Your task to perform on an android device: Search for the new Nintendo switch on Best Buy Image 0: 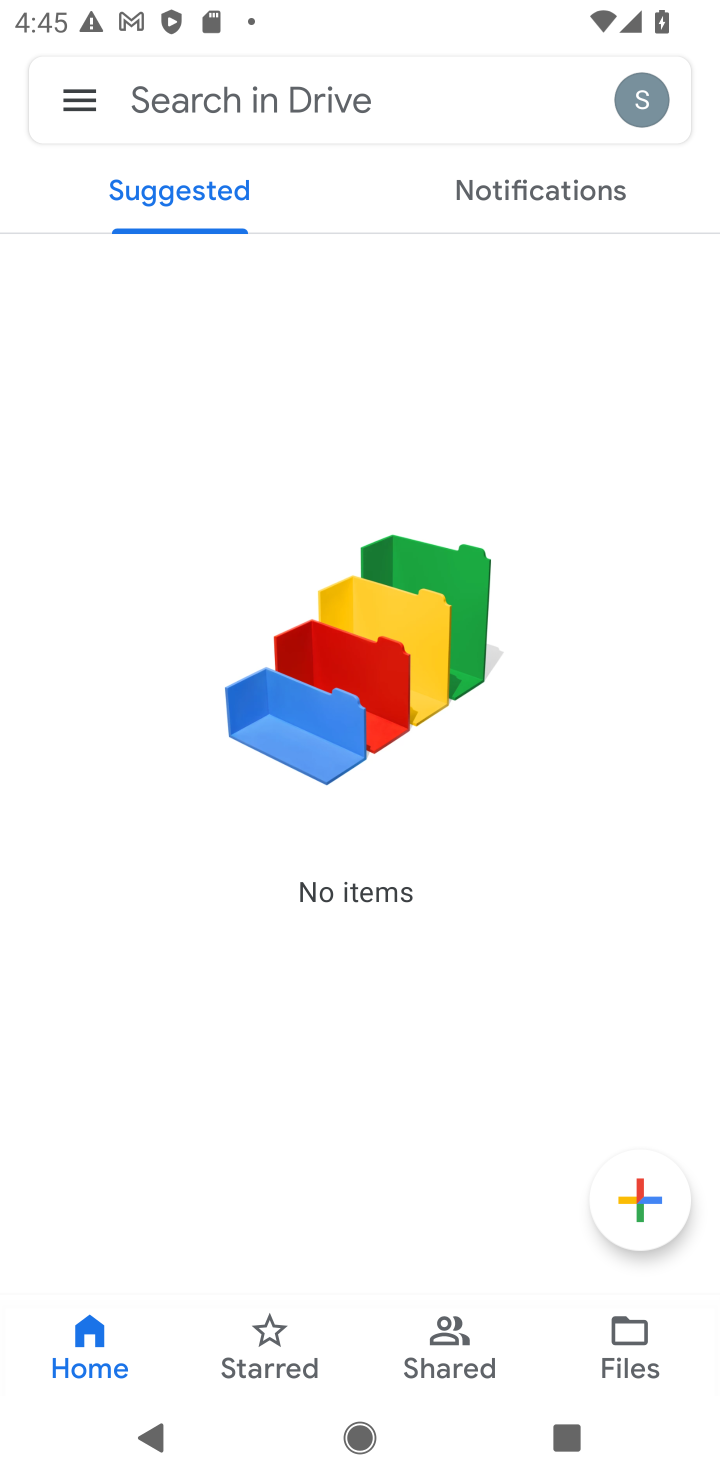
Step 0: press home button
Your task to perform on an android device: Search for the new Nintendo switch on Best Buy Image 1: 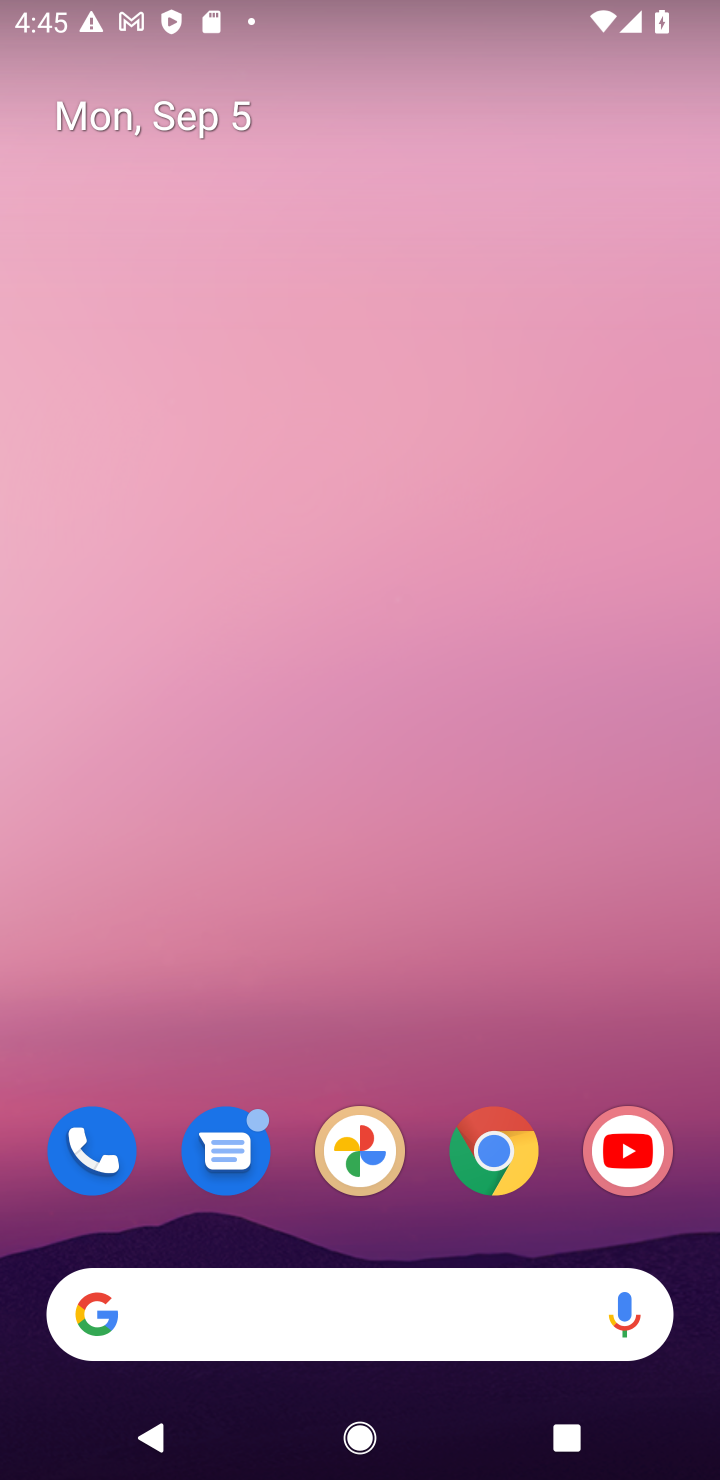
Step 1: drag from (433, 1229) to (517, 459)
Your task to perform on an android device: Search for the new Nintendo switch on Best Buy Image 2: 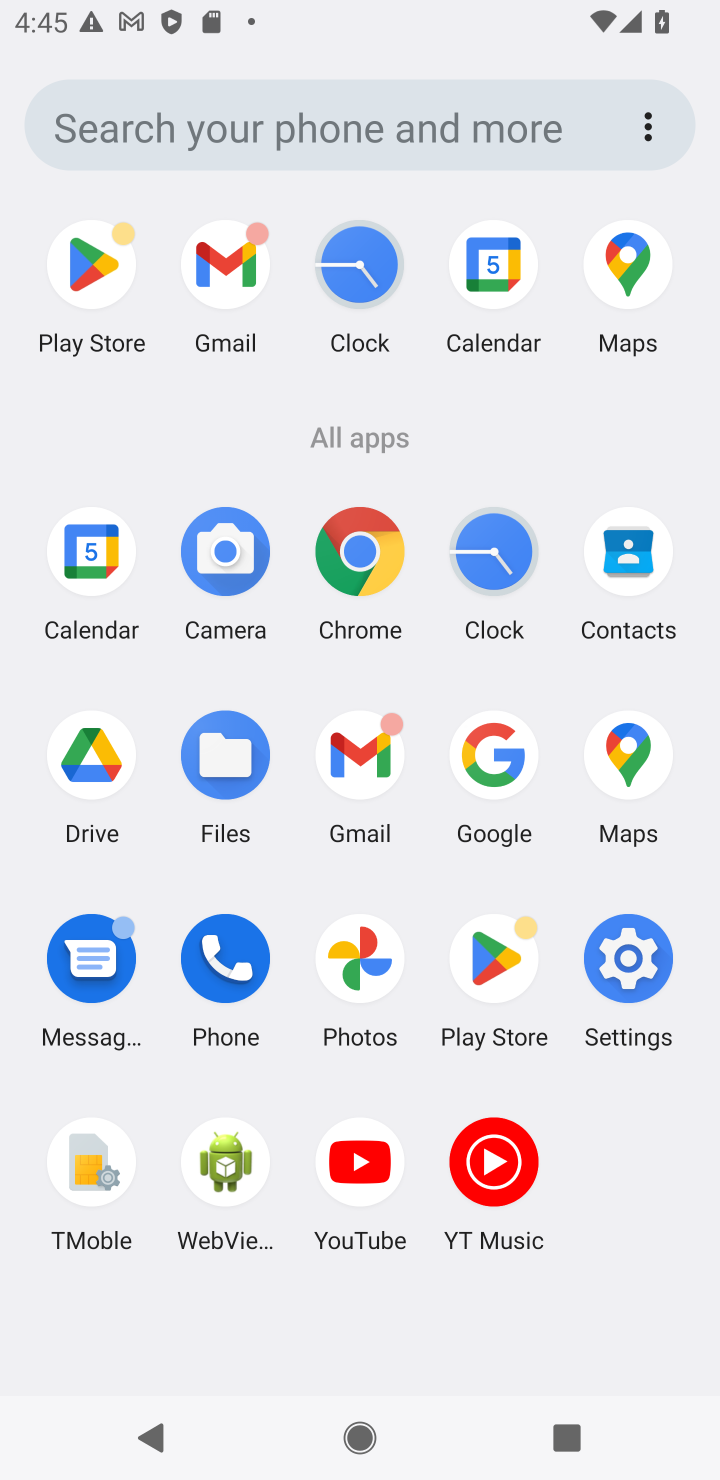
Step 2: click (356, 593)
Your task to perform on an android device: Search for the new Nintendo switch on Best Buy Image 3: 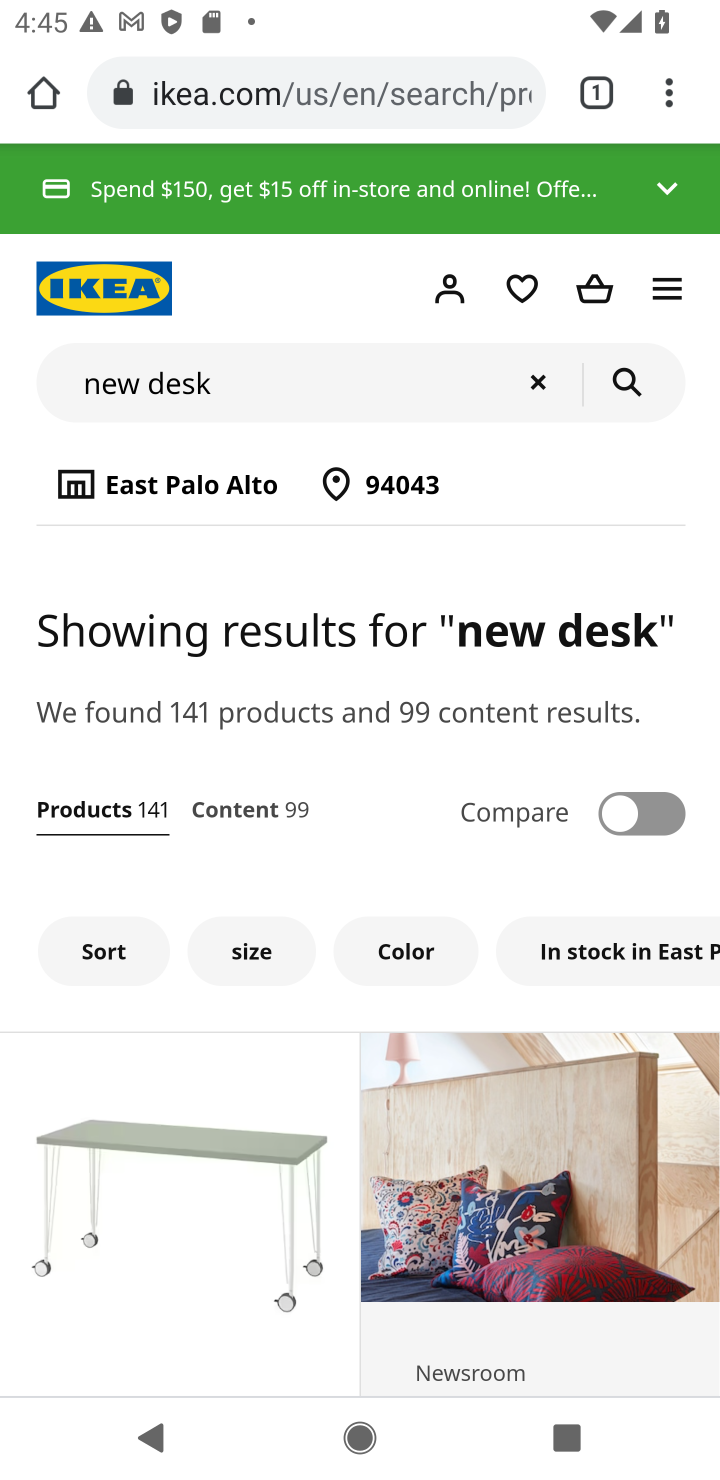
Step 3: click (427, 102)
Your task to perform on an android device: Search for the new Nintendo switch on Best Buy Image 4: 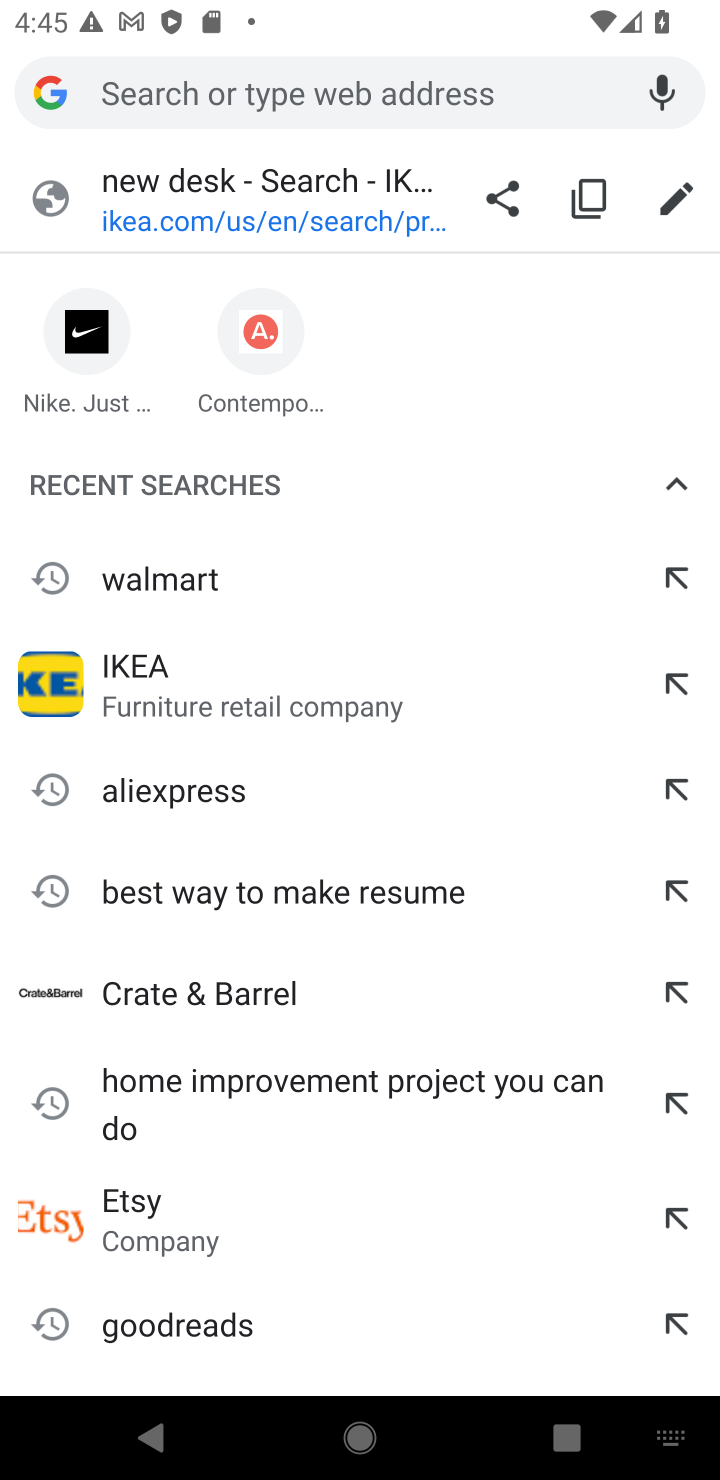
Step 4: type "best buy"
Your task to perform on an android device: Search for the new Nintendo switch on Best Buy Image 5: 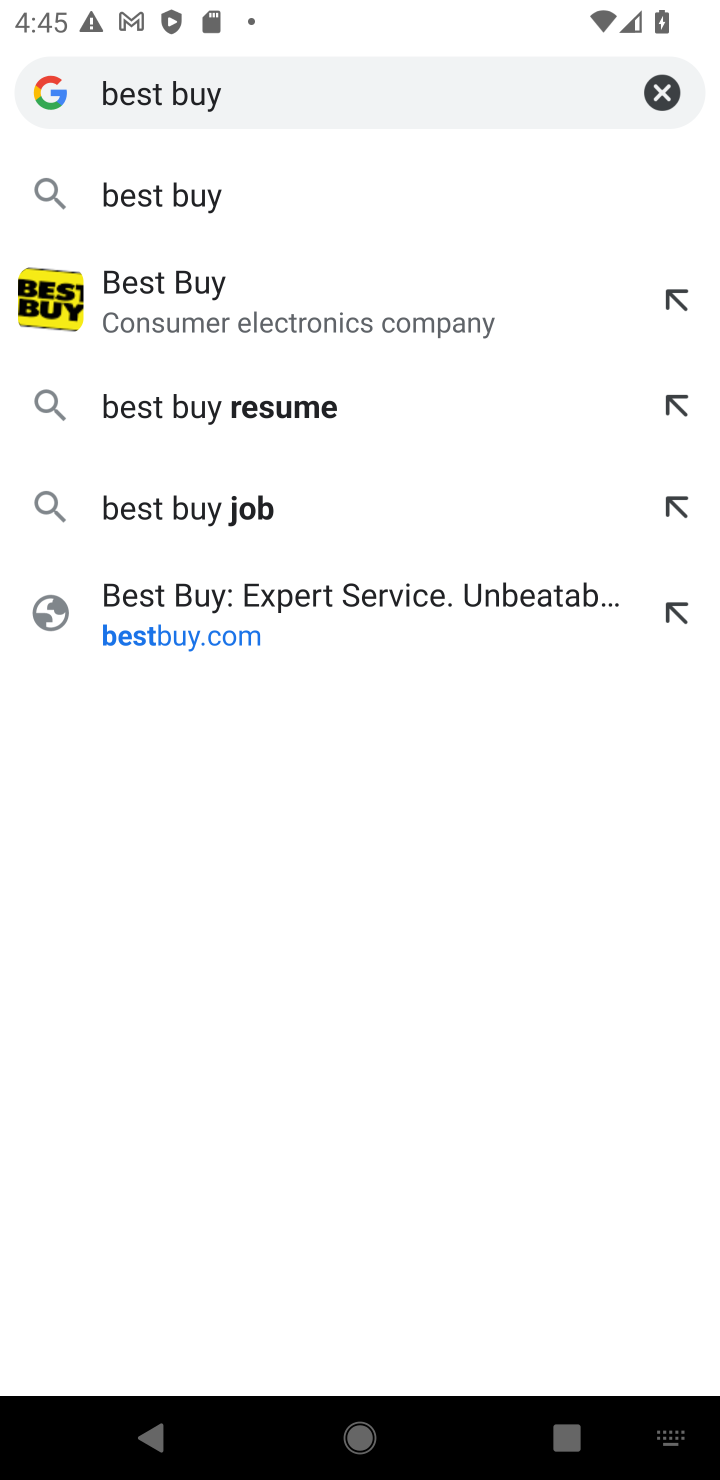
Step 5: click (307, 289)
Your task to perform on an android device: Search for the new Nintendo switch on Best Buy Image 6: 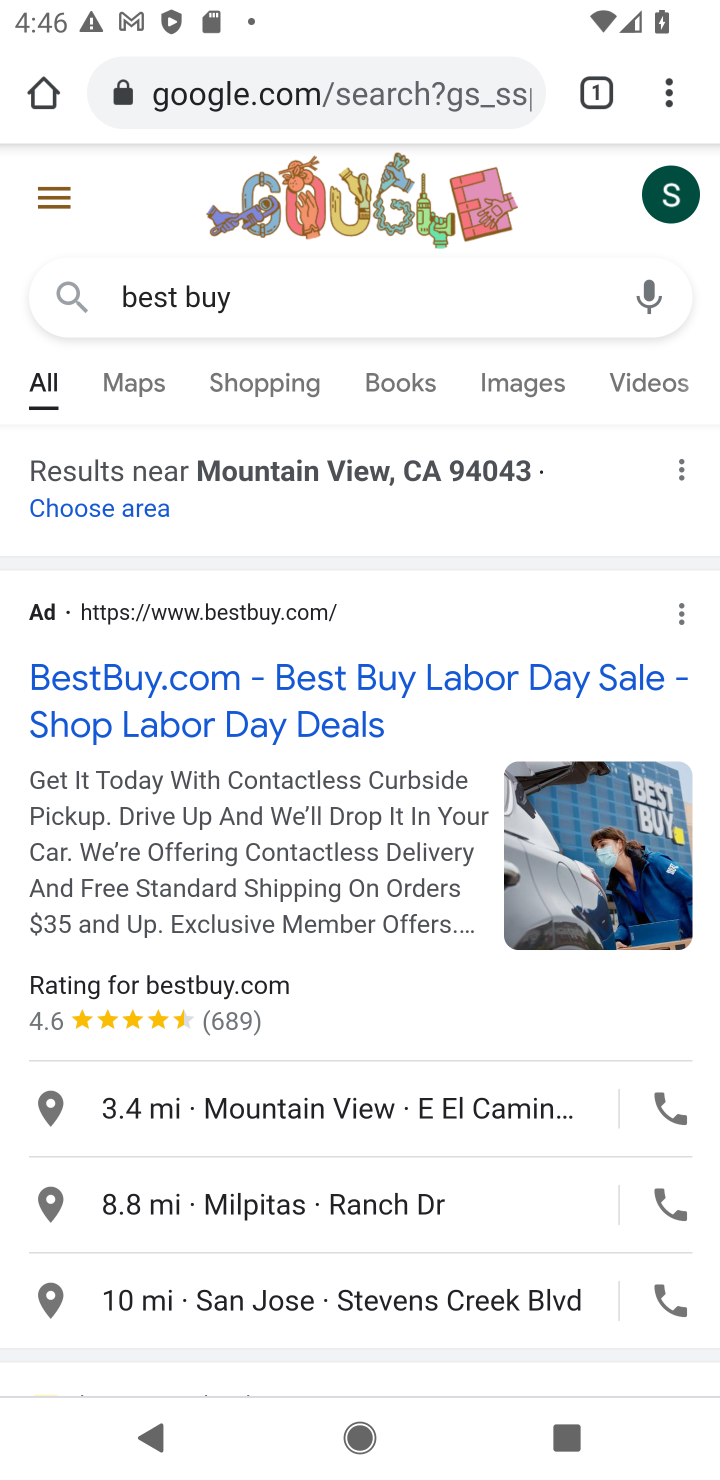
Step 6: drag from (376, 1163) to (481, 523)
Your task to perform on an android device: Search for the new Nintendo switch on Best Buy Image 7: 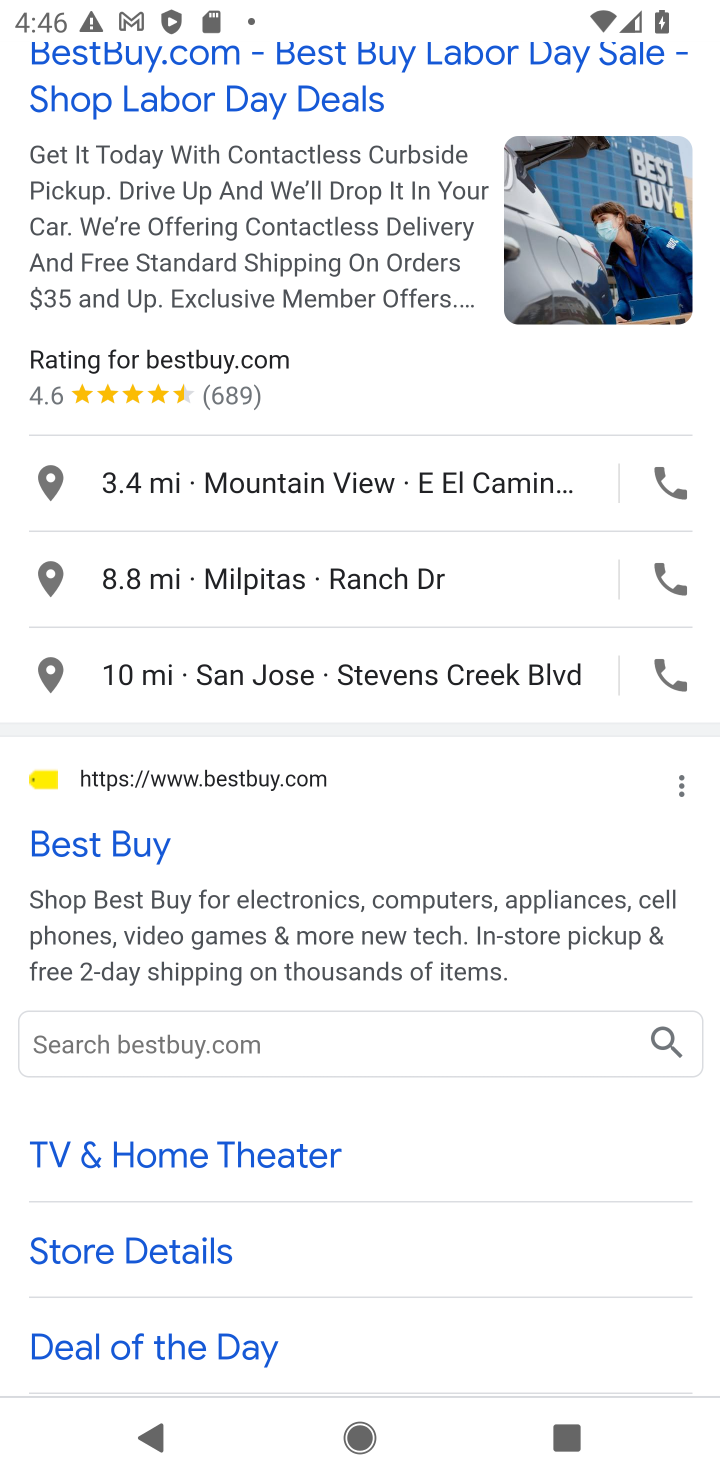
Step 7: click (147, 838)
Your task to perform on an android device: Search for the new Nintendo switch on Best Buy Image 8: 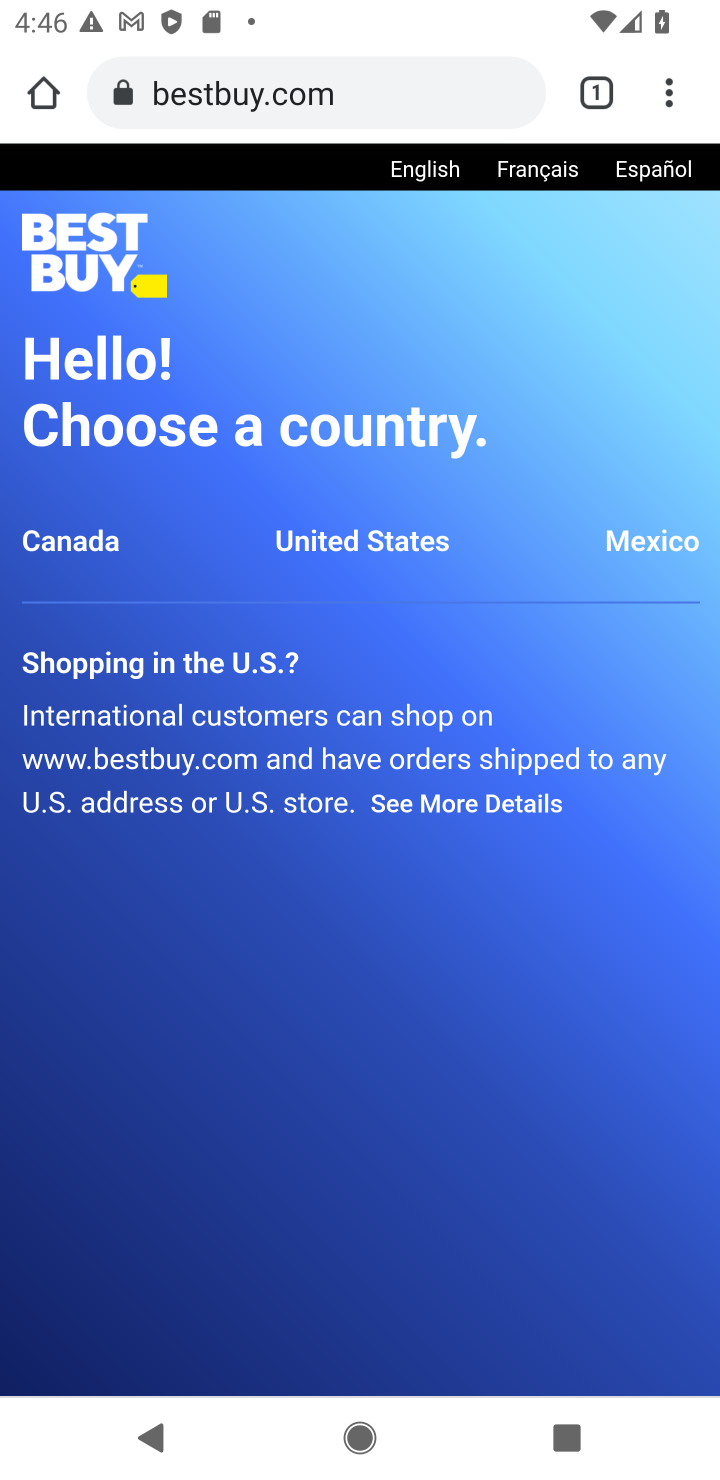
Step 8: click (380, 545)
Your task to perform on an android device: Search for the new Nintendo switch on Best Buy Image 9: 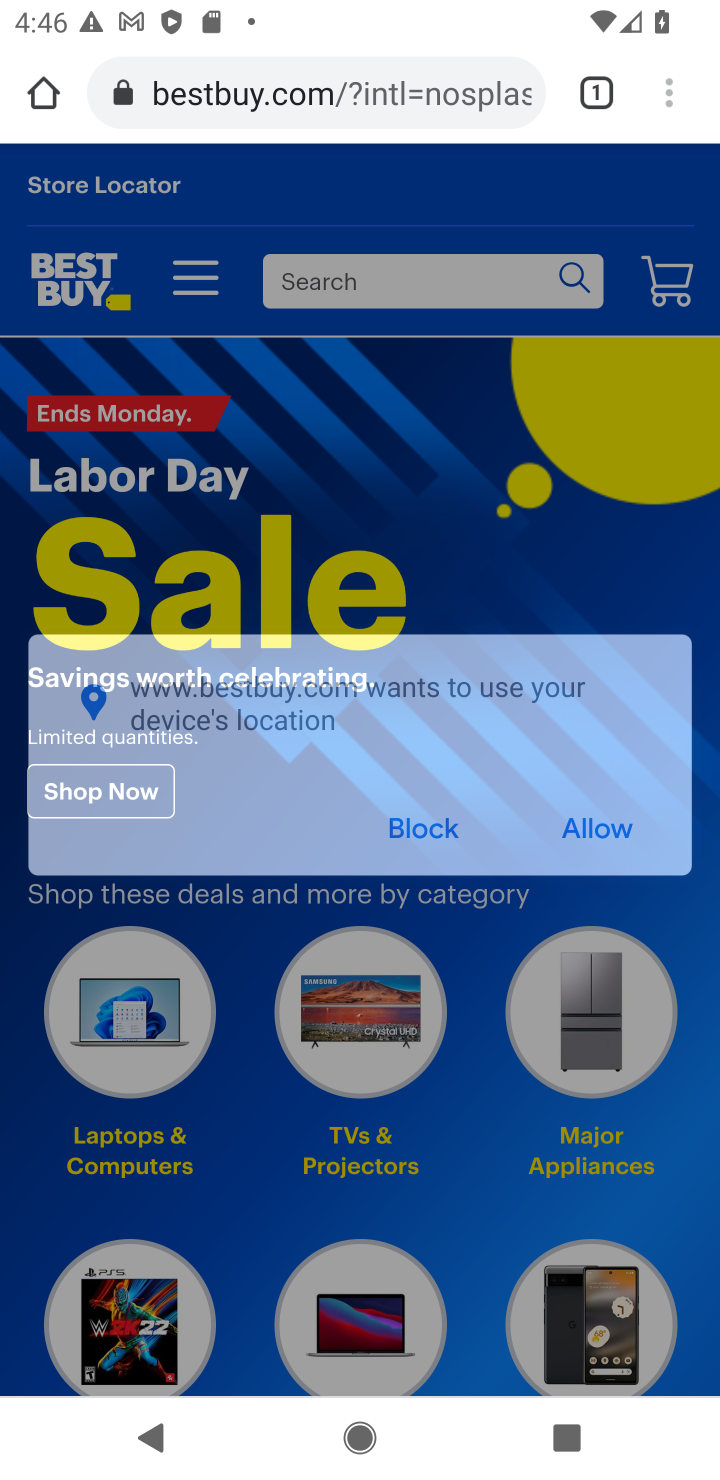
Step 9: click (458, 284)
Your task to perform on an android device: Search for the new Nintendo switch on Best Buy Image 10: 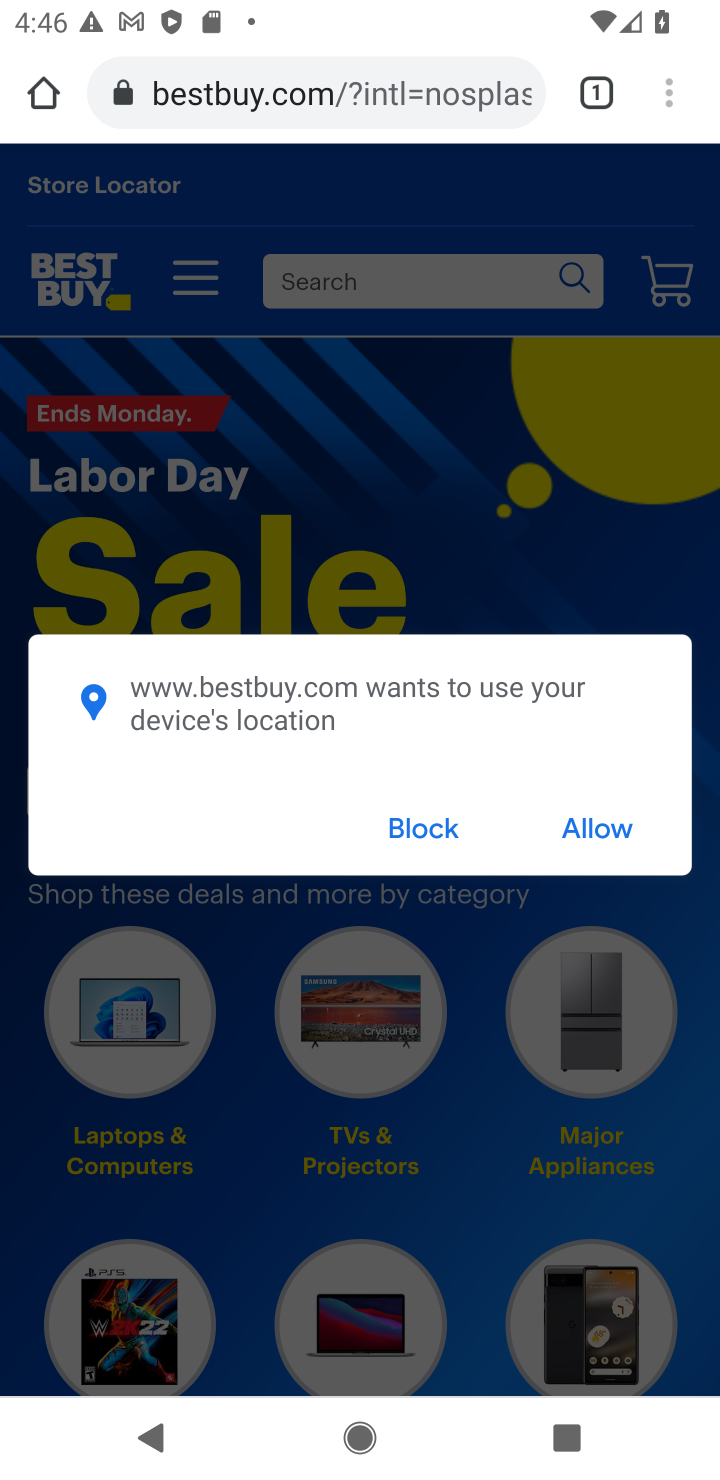
Step 10: click (574, 833)
Your task to perform on an android device: Search for the new Nintendo switch on Best Buy Image 11: 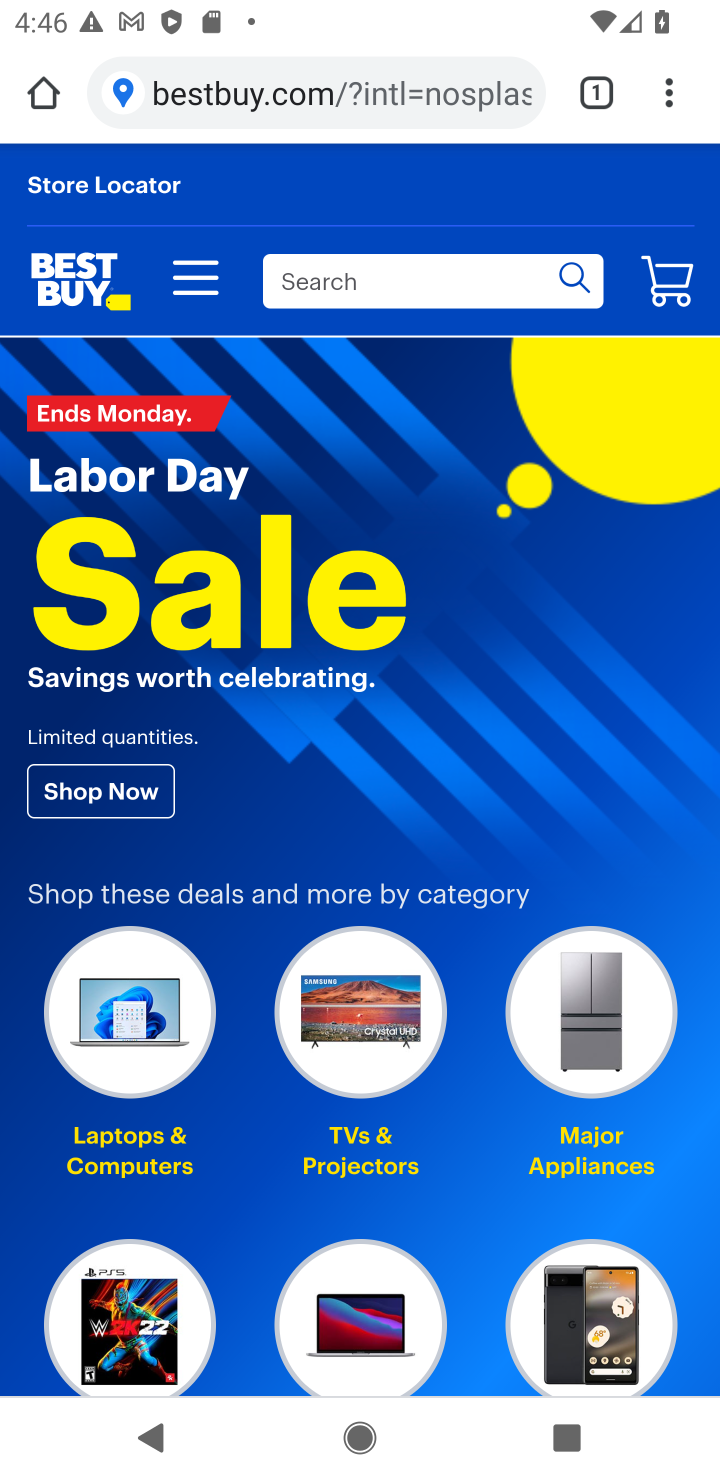
Step 11: click (469, 289)
Your task to perform on an android device: Search for the new Nintendo switch on Best Buy Image 12: 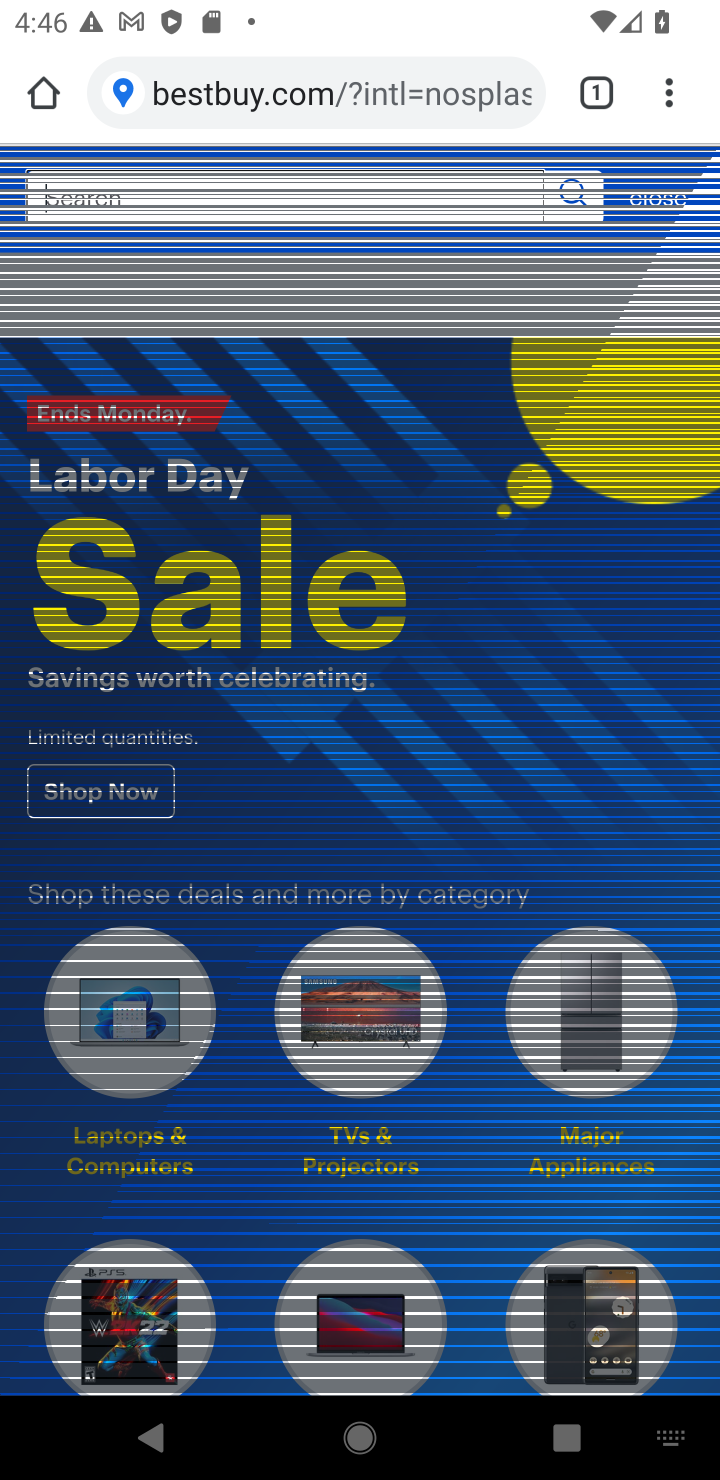
Step 12: click (469, 289)
Your task to perform on an android device: Search for the new Nintendo switch on Best Buy Image 13: 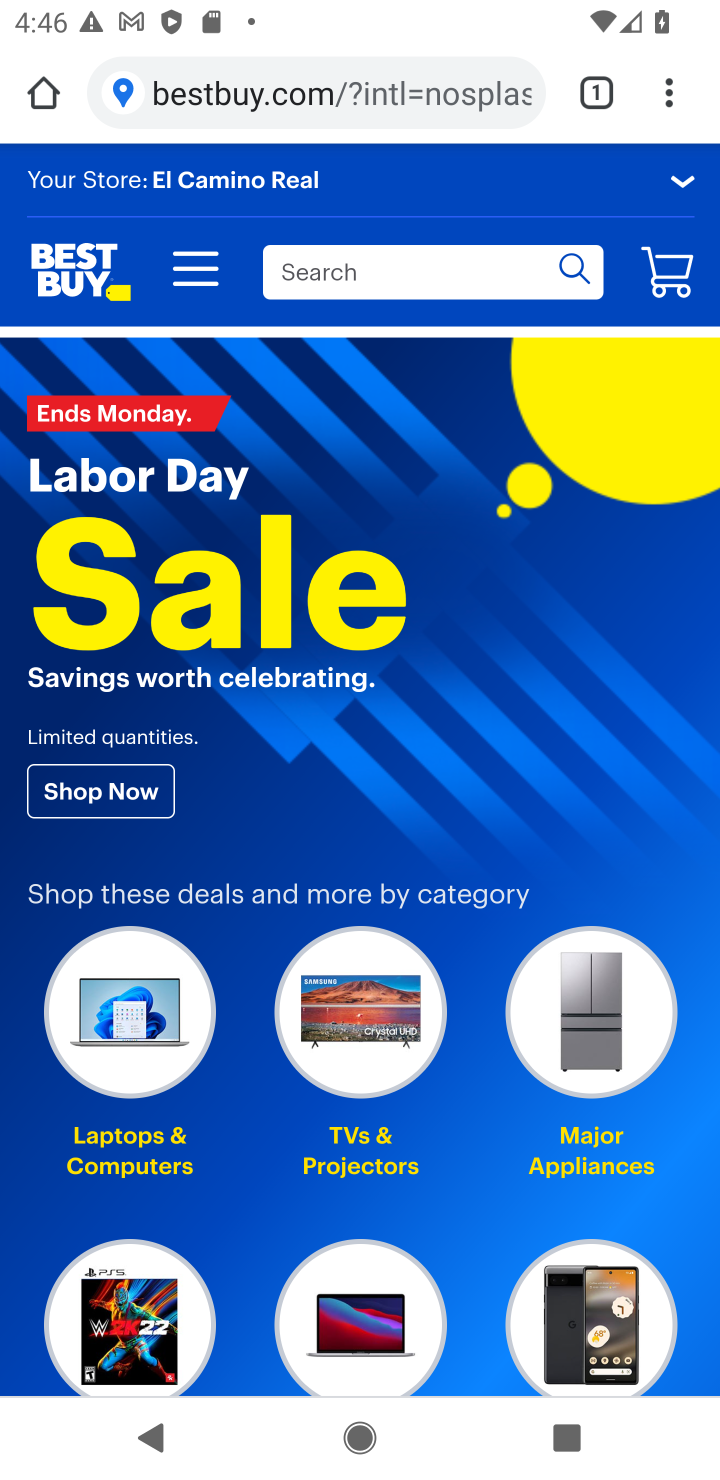
Step 13: click (418, 277)
Your task to perform on an android device: Search for the new Nintendo switch on Best Buy Image 14: 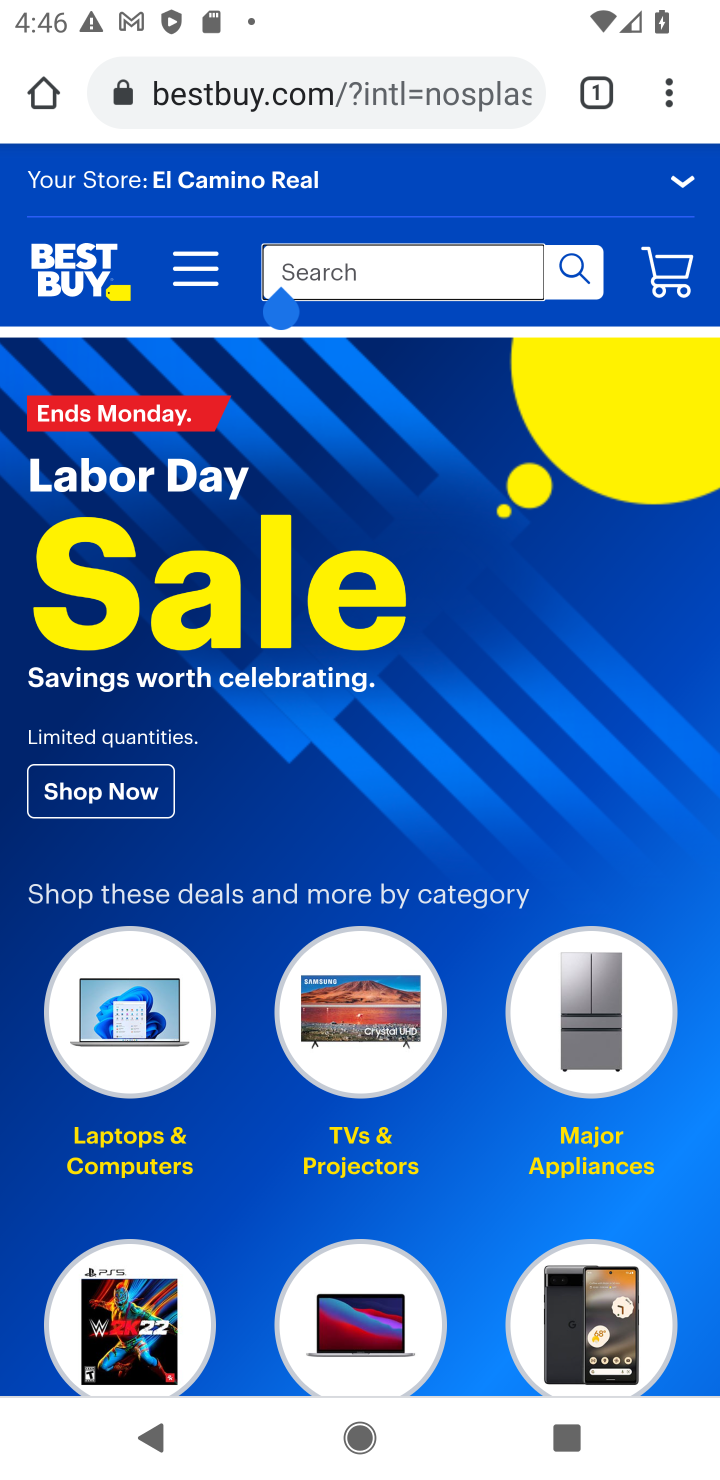
Step 14: type "nintendo switch"
Your task to perform on an android device: Search for the new Nintendo switch on Best Buy Image 15: 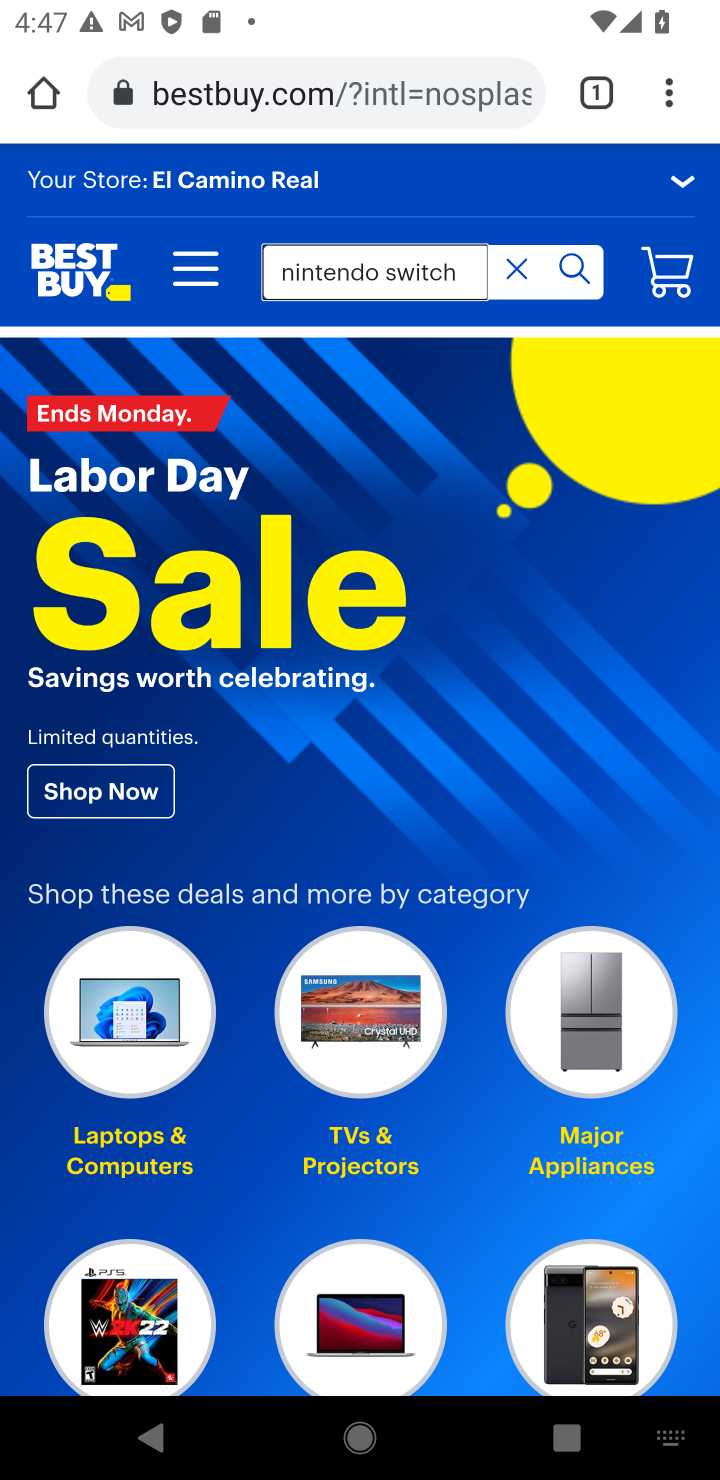
Step 15: click (577, 279)
Your task to perform on an android device: Search for the new Nintendo switch on Best Buy Image 16: 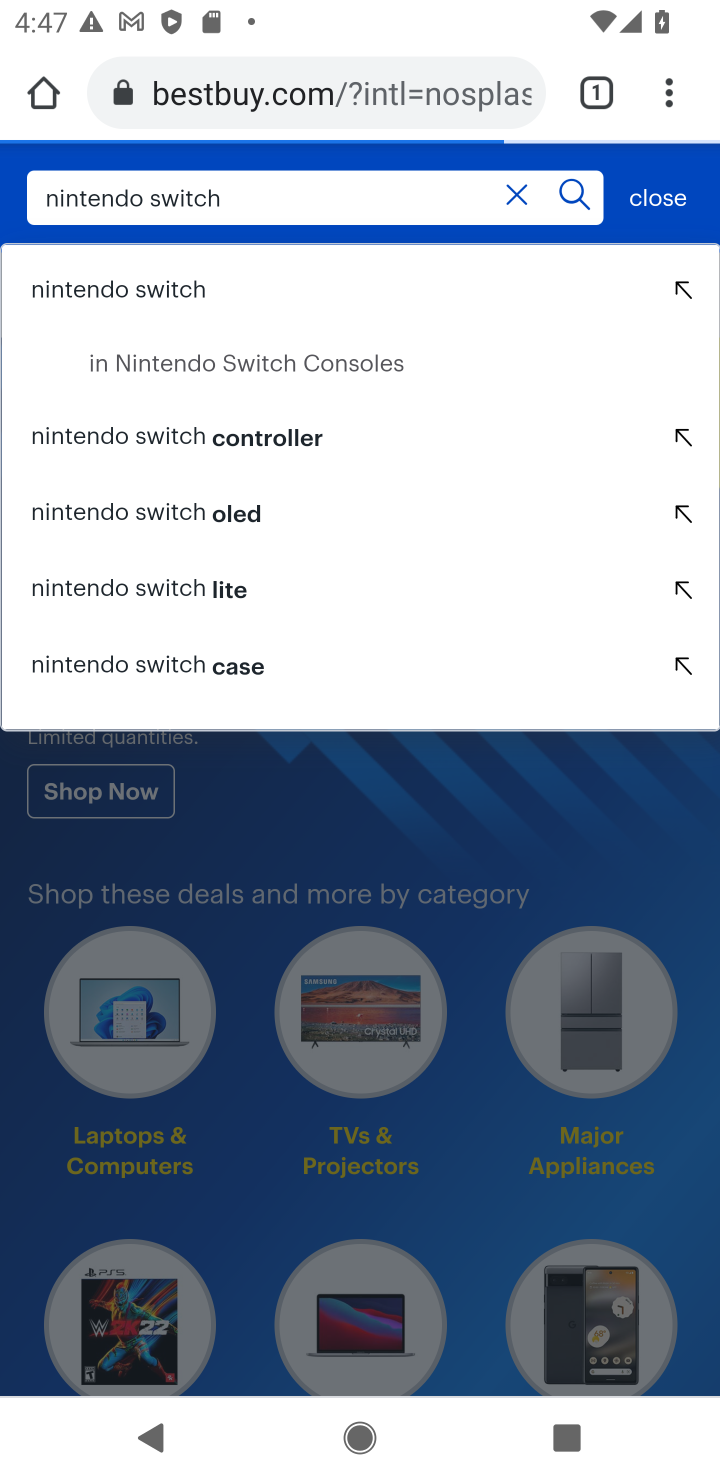
Step 16: click (214, 294)
Your task to perform on an android device: Search for the new Nintendo switch on Best Buy Image 17: 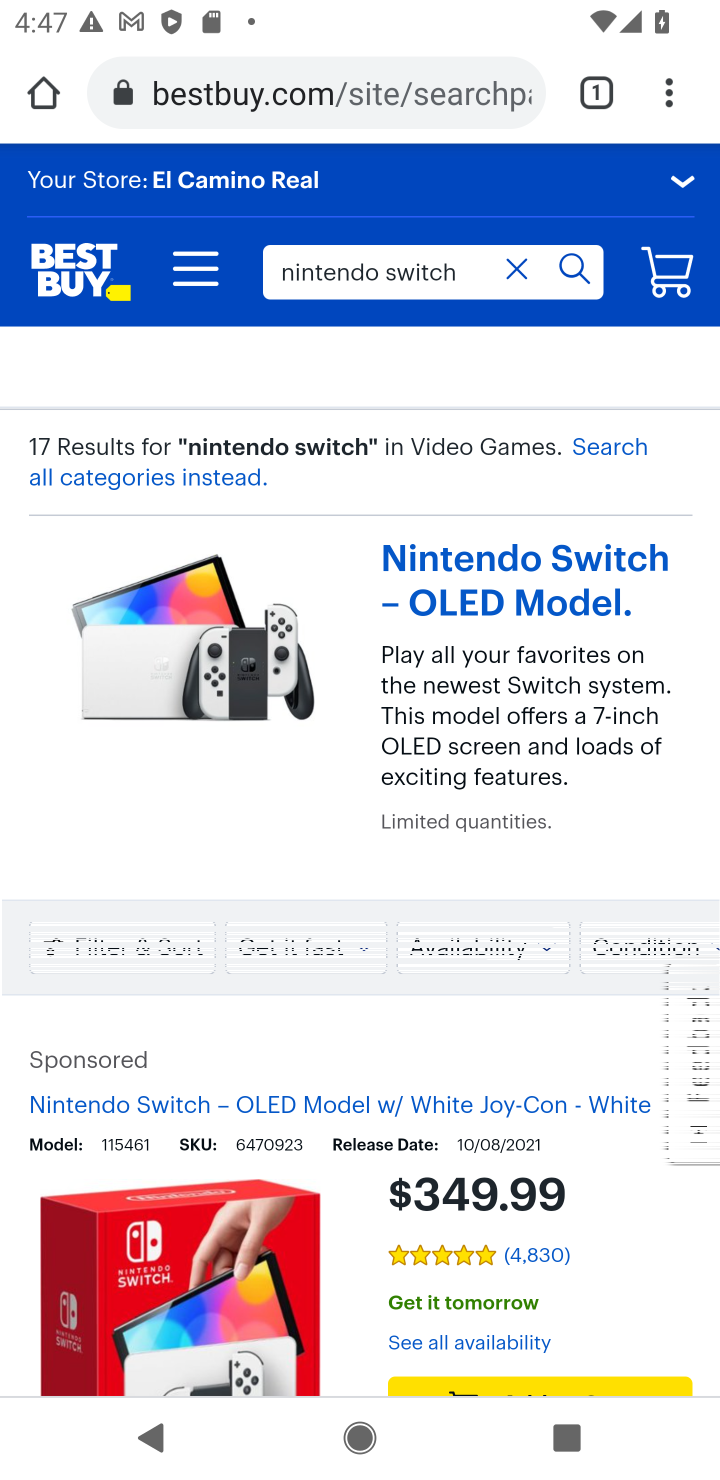
Step 17: task complete